Your task to perform on an android device: Open network settings Image 0: 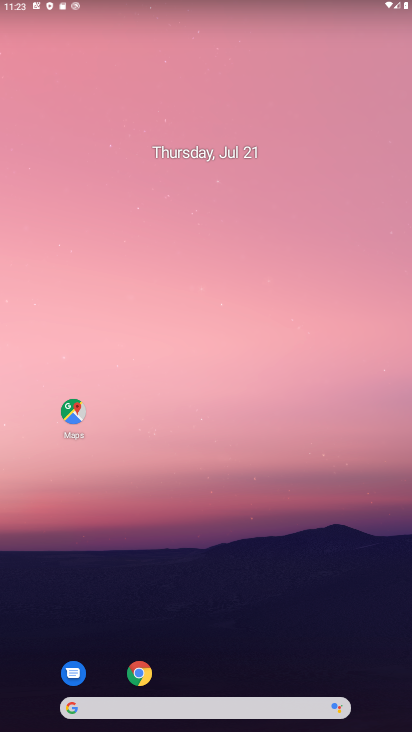
Step 0: drag from (190, 640) to (175, 257)
Your task to perform on an android device: Open network settings Image 1: 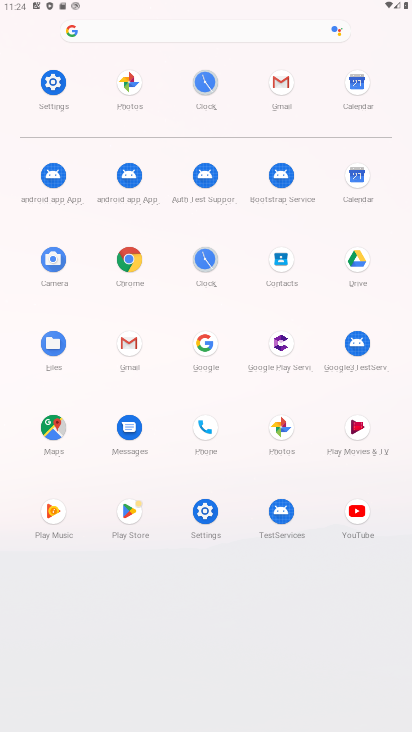
Step 1: click (57, 84)
Your task to perform on an android device: Open network settings Image 2: 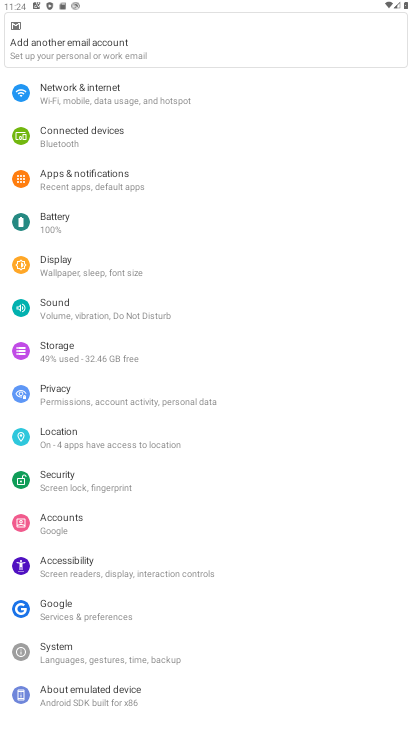
Step 2: click (97, 109)
Your task to perform on an android device: Open network settings Image 3: 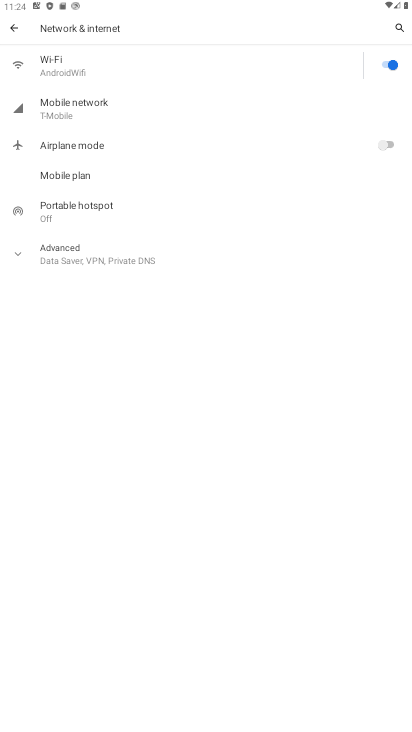
Step 3: task complete